Your task to perform on an android device: open app "LiveIn - Share Your Moment" Image 0: 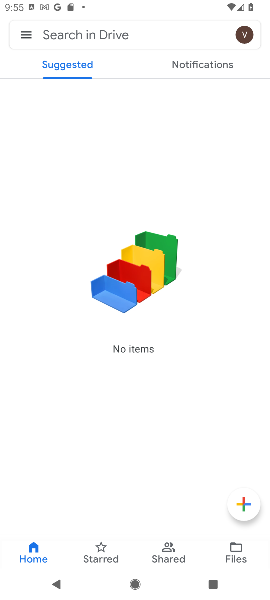
Step 0: press home button
Your task to perform on an android device: open app "LiveIn - Share Your Moment" Image 1: 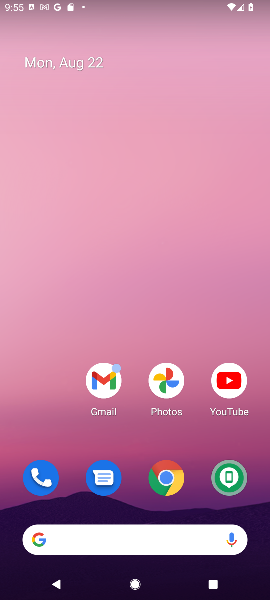
Step 1: drag from (195, 507) to (158, 71)
Your task to perform on an android device: open app "LiveIn - Share Your Moment" Image 2: 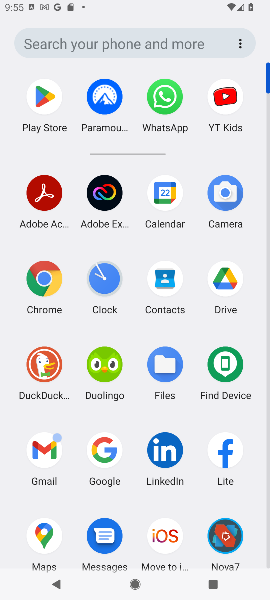
Step 2: click (56, 108)
Your task to perform on an android device: open app "LiveIn - Share Your Moment" Image 3: 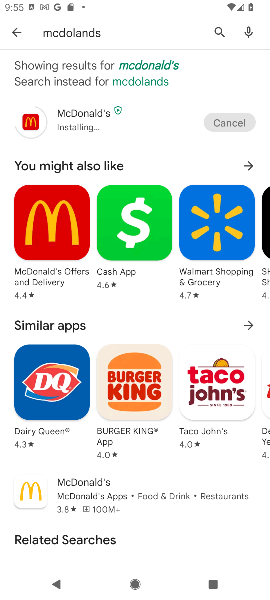
Step 3: click (213, 27)
Your task to perform on an android device: open app "LiveIn - Share Your Moment" Image 4: 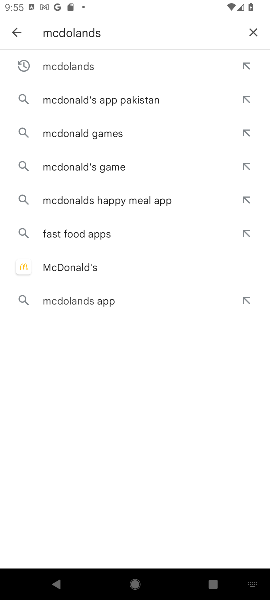
Step 4: click (250, 32)
Your task to perform on an android device: open app "LiveIn - Share Your Moment" Image 5: 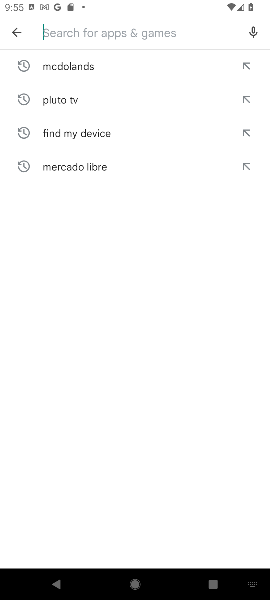
Step 5: type "livein"
Your task to perform on an android device: open app "LiveIn - Share Your Moment" Image 6: 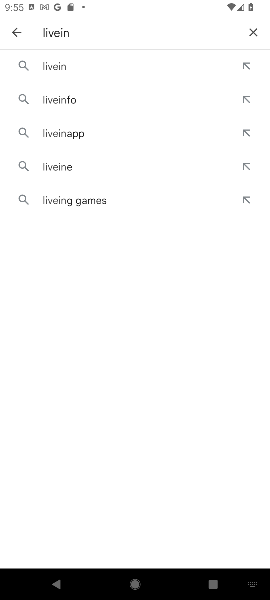
Step 6: click (81, 63)
Your task to perform on an android device: open app "LiveIn - Share Your Moment" Image 7: 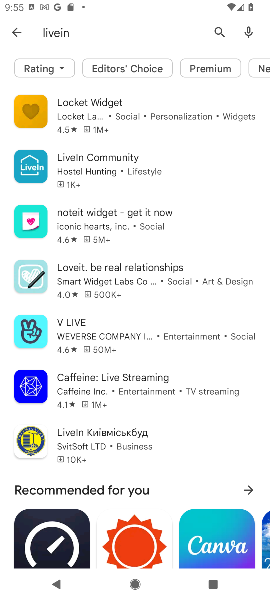
Step 7: click (134, 168)
Your task to perform on an android device: open app "LiveIn - Share Your Moment" Image 8: 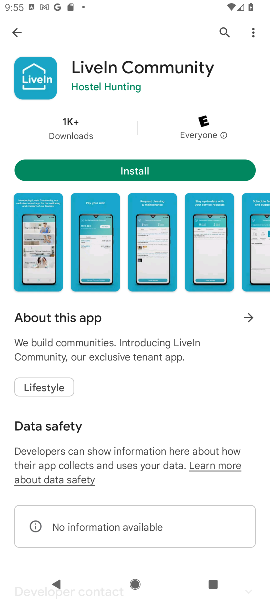
Step 8: click (111, 169)
Your task to perform on an android device: open app "LiveIn - Share Your Moment" Image 9: 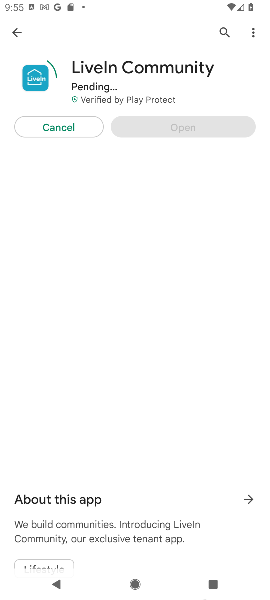
Step 9: task complete